Your task to perform on an android device: Open Youtube and go to "Your channel" Image 0: 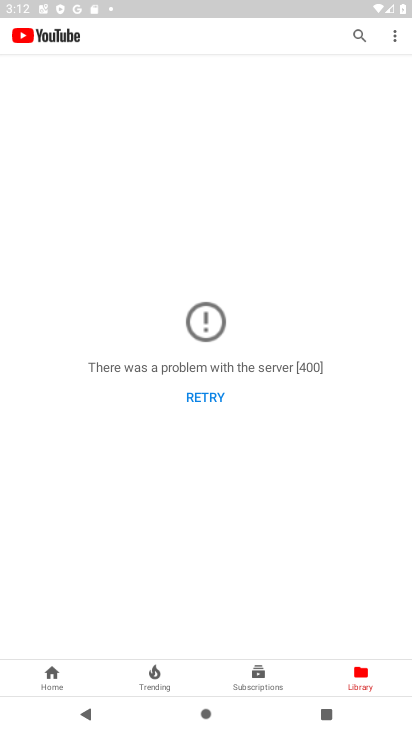
Step 0: click (399, 41)
Your task to perform on an android device: Open Youtube and go to "Your channel" Image 1: 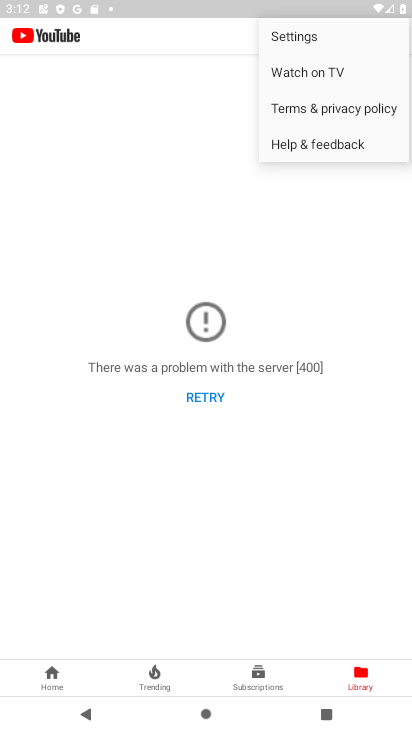
Step 1: task complete